Your task to perform on an android device: Open the Play Movies app and select the watchlist tab. Image 0: 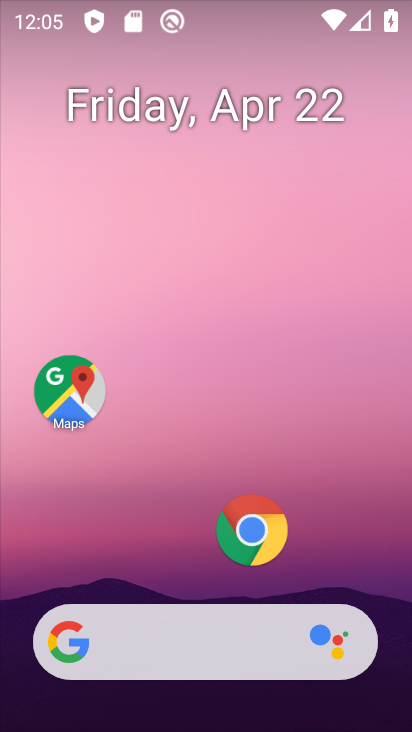
Step 0: drag from (217, 524) to (202, 209)
Your task to perform on an android device: Open the Play Movies app and select the watchlist tab. Image 1: 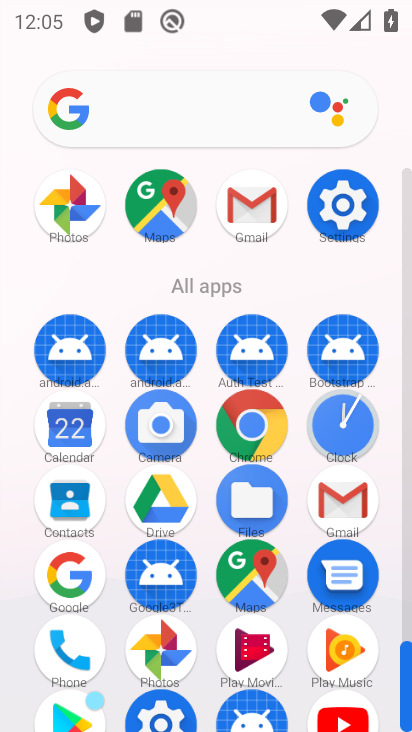
Step 1: click (256, 643)
Your task to perform on an android device: Open the Play Movies app and select the watchlist tab. Image 2: 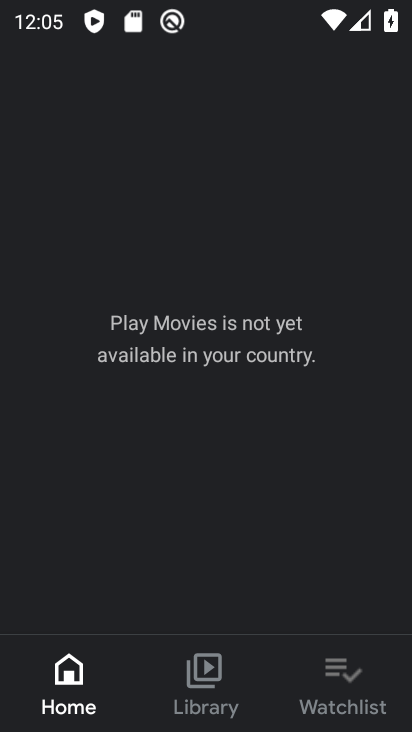
Step 2: click (328, 672)
Your task to perform on an android device: Open the Play Movies app and select the watchlist tab. Image 3: 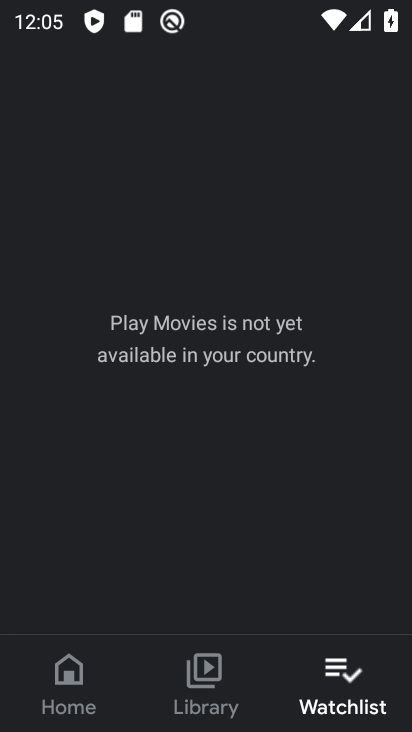
Step 3: task complete